Your task to perform on an android device: What is the news today? Image 0: 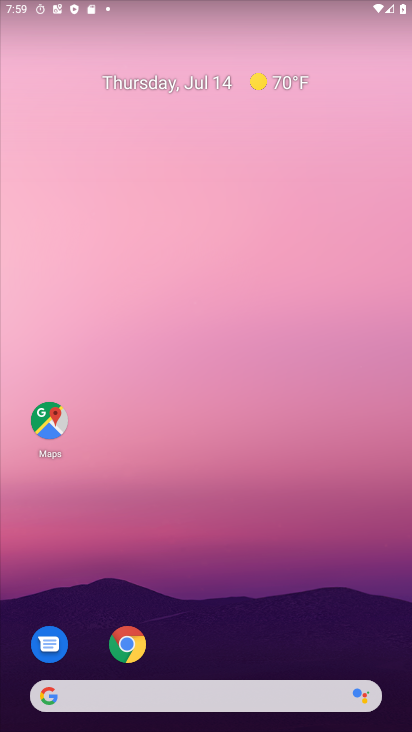
Step 0: click (182, 699)
Your task to perform on an android device: What is the news today? Image 1: 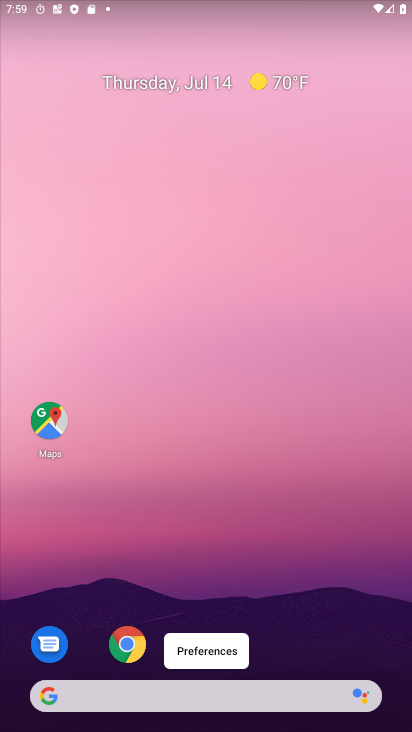
Step 1: click (150, 686)
Your task to perform on an android device: What is the news today? Image 2: 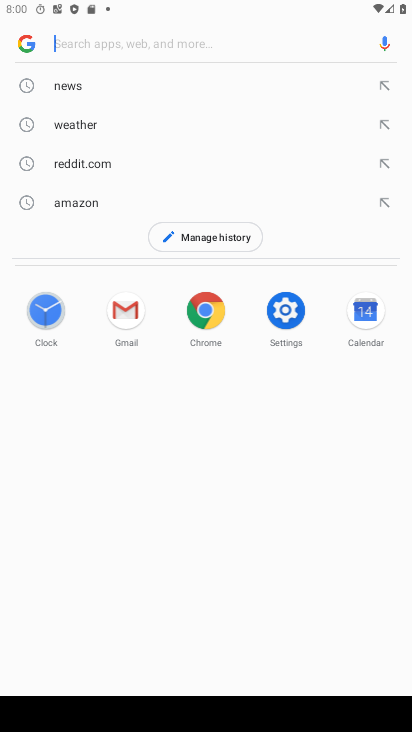
Step 2: click (73, 86)
Your task to perform on an android device: What is the news today? Image 3: 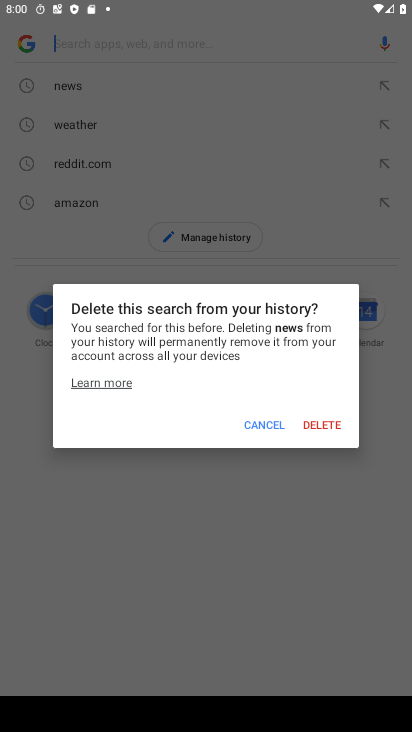
Step 3: click (267, 424)
Your task to perform on an android device: What is the news today? Image 4: 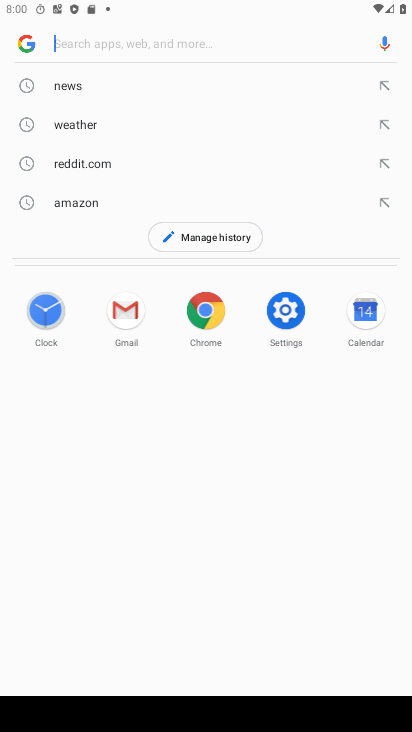
Step 4: click (81, 91)
Your task to perform on an android device: What is the news today? Image 5: 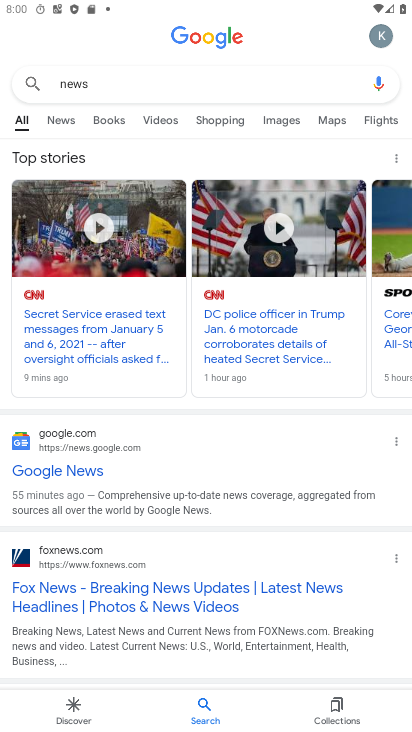
Step 5: click (52, 124)
Your task to perform on an android device: What is the news today? Image 6: 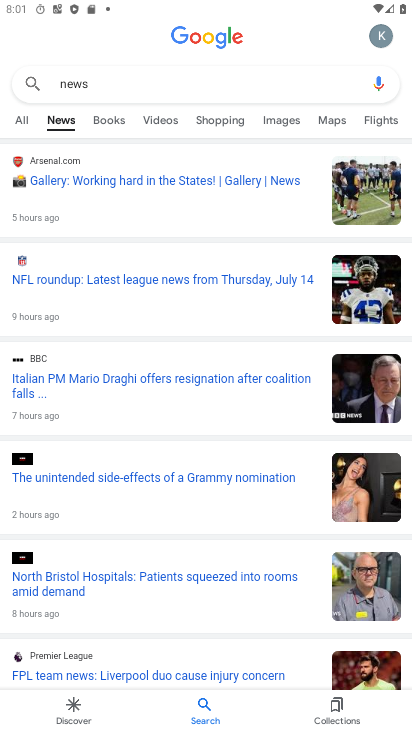
Step 6: task complete